Your task to perform on an android device: turn off translation in the chrome app Image 0: 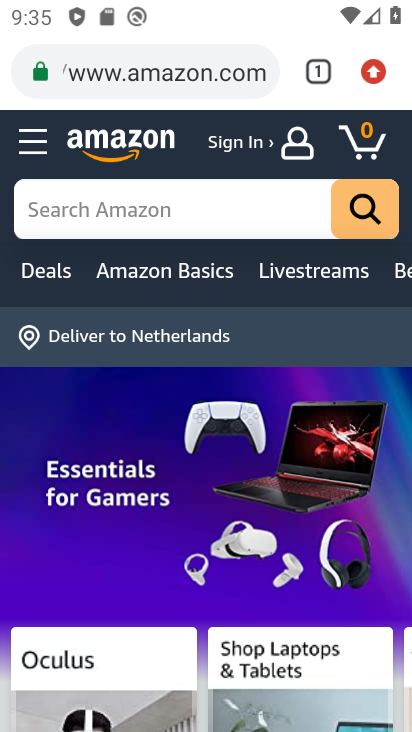
Step 0: press home button
Your task to perform on an android device: turn off translation in the chrome app Image 1: 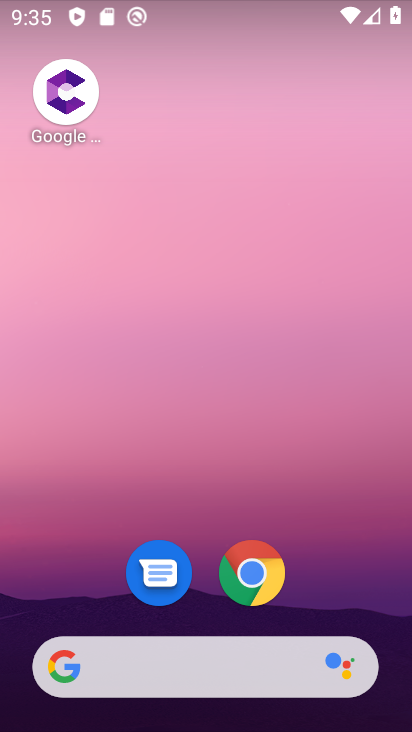
Step 1: click (251, 576)
Your task to perform on an android device: turn off translation in the chrome app Image 2: 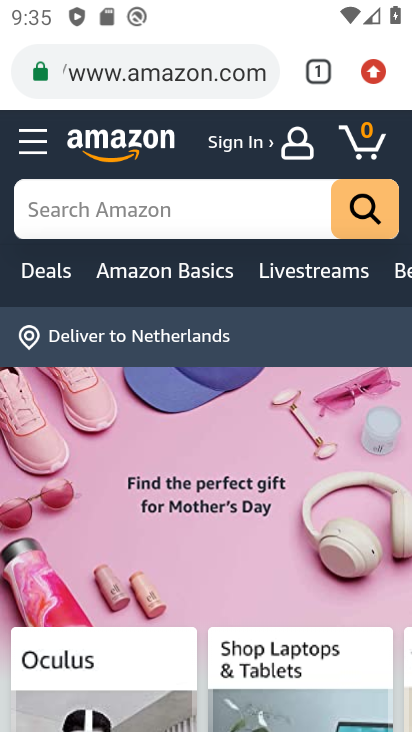
Step 2: click (374, 72)
Your task to perform on an android device: turn off translation in the chrome app Image 3: 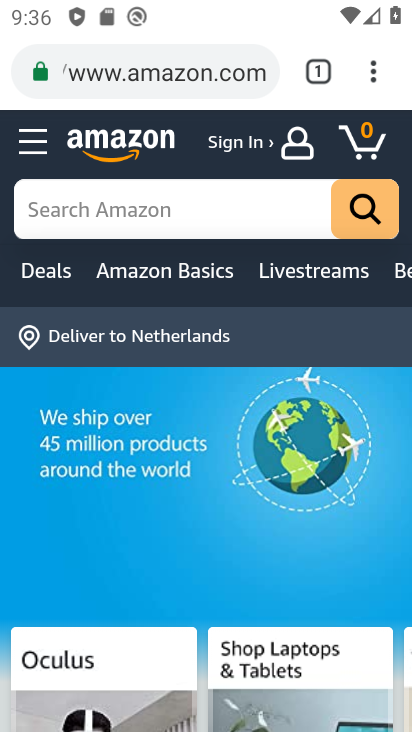
Step 3: click (374, 70)
Your task to perform on an android device: turn off translation in the chrome app Image 4: 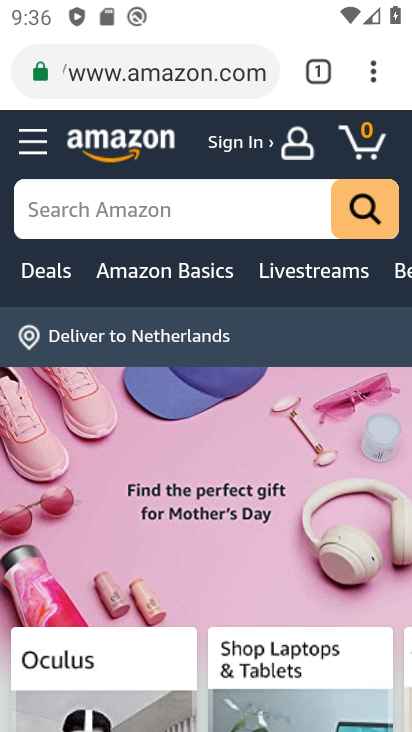
Step 4: click (374, 70)
Your task to perform on an android device: turn off translation in the chrome app Image 5: 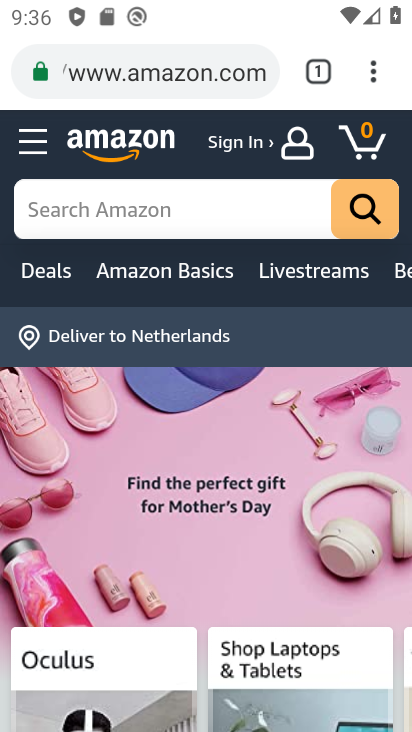
Step 5: click (375, 76)
Your task to perform on an android device: turn off translation in the chrome app Image 6: 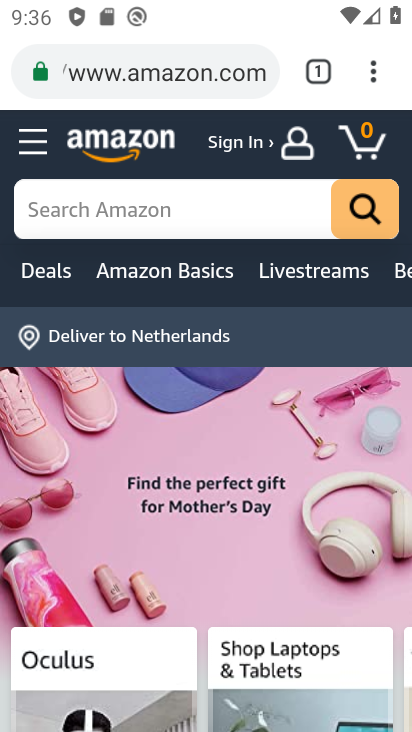
Step 6: click (373, 70)
Your task to perform on an android device: turn off translation in the chrome app Image 7: 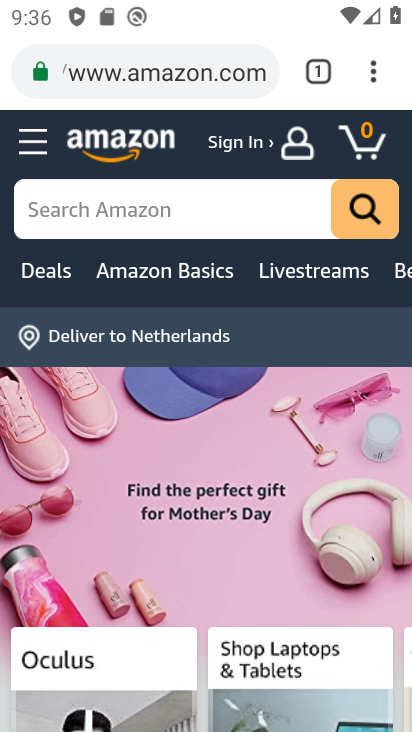
Step 7: click (371, 70)
Your task to perform on an android device: turn off translation in the chrome app Image 8: 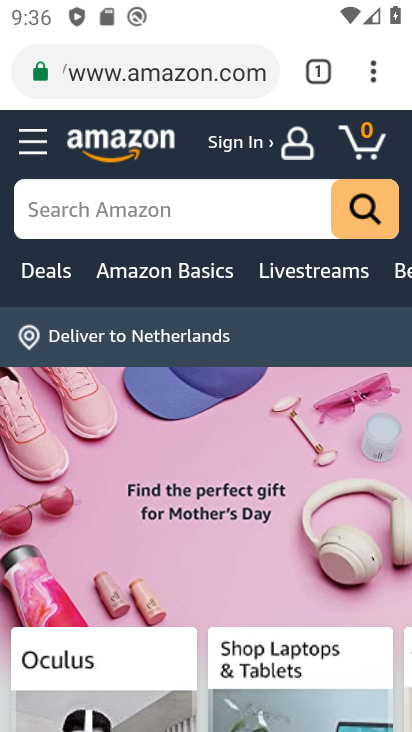
Step 8: click (373, 70)
Your task to perform on an android device: turn off translation in the chrome app Image 9: 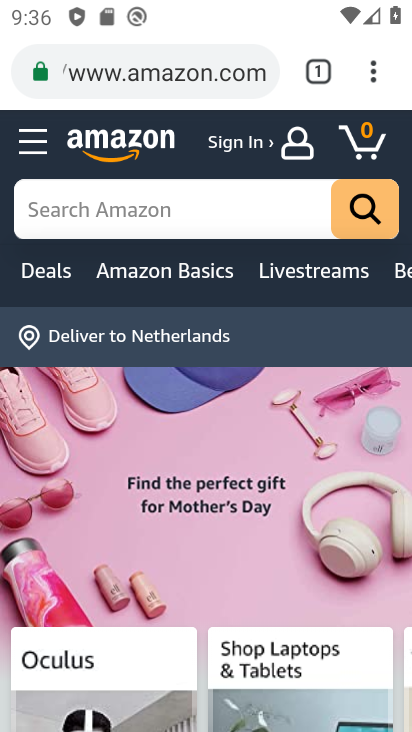
Step 9: click (374, 68)
Your task to perform on an android device: turn off translation in the chrome app Image 10: 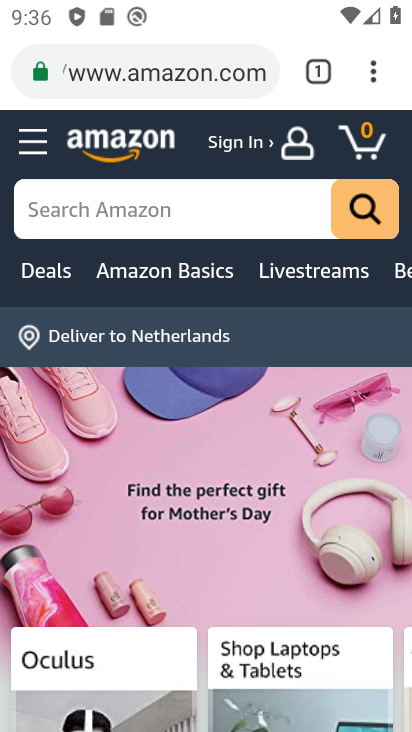
Step 10: click (377, 73)
Your task to perform on an android device: turn off translation in the chrome app Image 11: 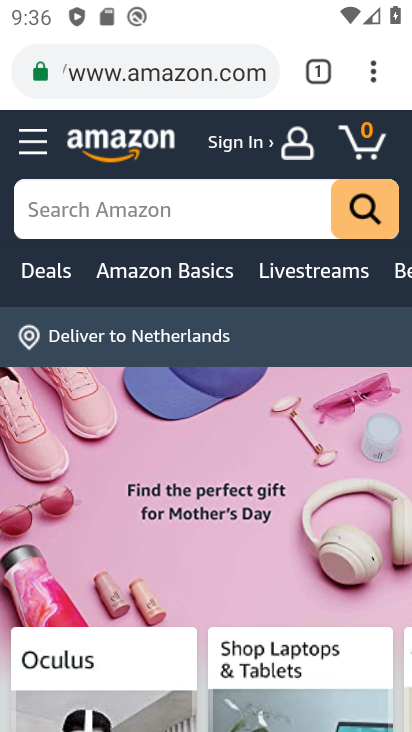
Step 11: click (370, 71)
Your task to perform on an android device: turn off translation in the chrome app Image 12: 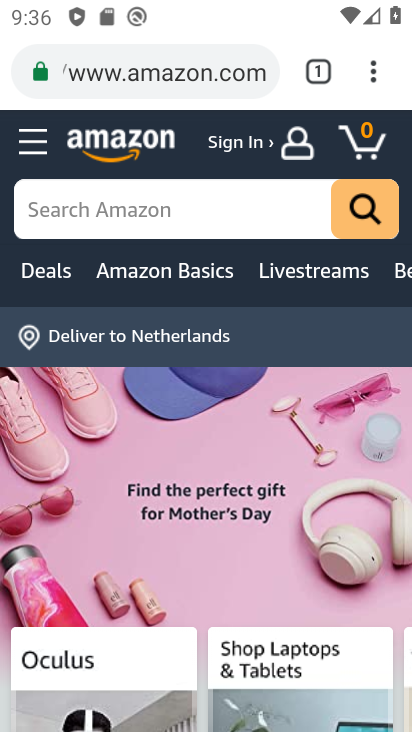
Step 12: click (365, 67)
Your task to perform on an android device: turn off translation in the chrome app Image 13: 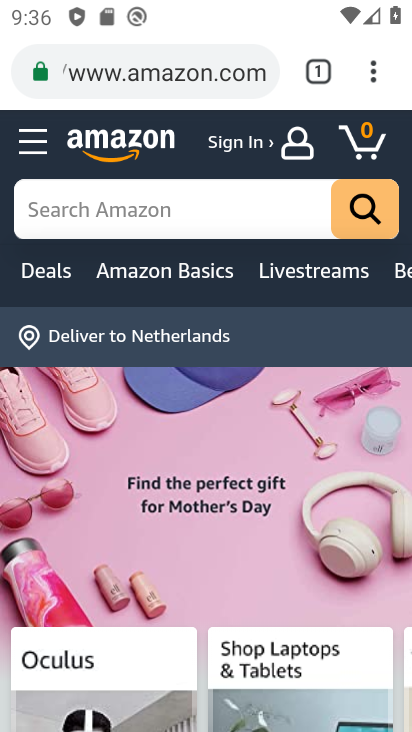
Step 13: click (374, 72)
Your task to perform on an android device: turn off translation in the chrome app Image 14: 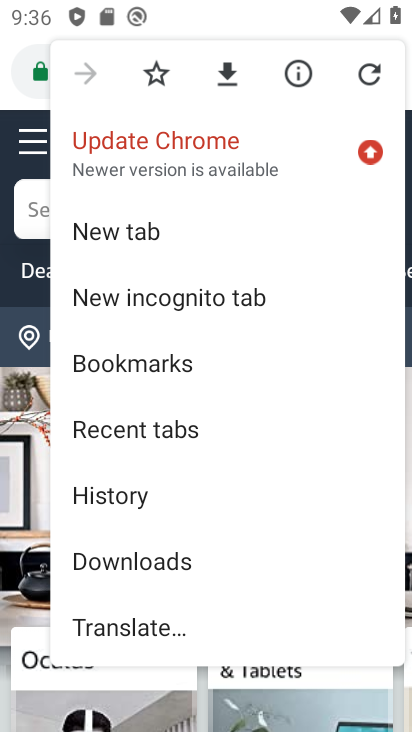
Step 14: drag from (336, 583) to (329, 195)
Your task to perform on an android device: turn off translation in the chrome app Image 15: 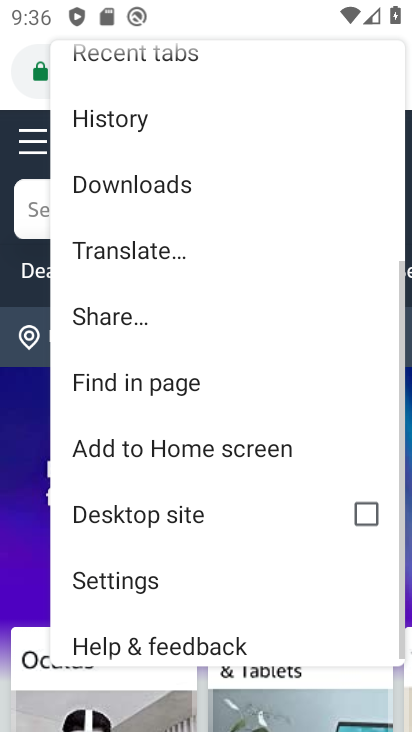
Step 15: drag from (223, 508) to (208, 194)
Your task to perform on an android device: turn off translation in the chrome app Image 16: 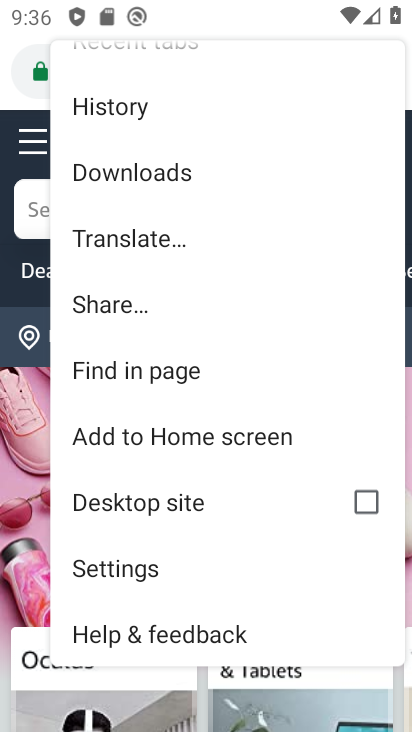
Step 16: click (105, 573)
Your task to perform on an android device: turn off translation in the chrome app Image 17: 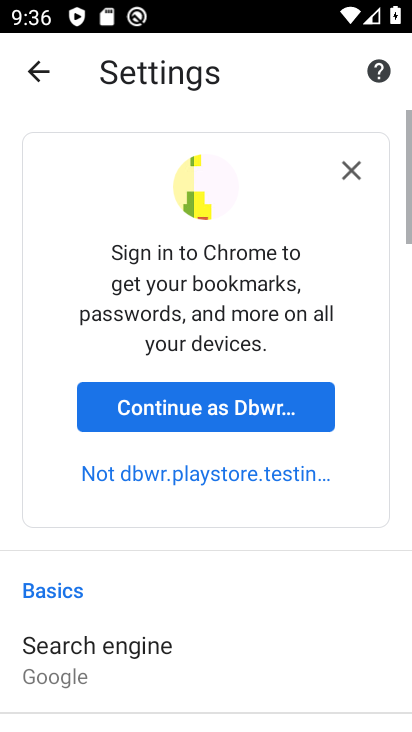
Step 17: drag from (233, 607) to (239, 220)
Your task to perform on an android device: turn off translation in the chrome app Image 18: 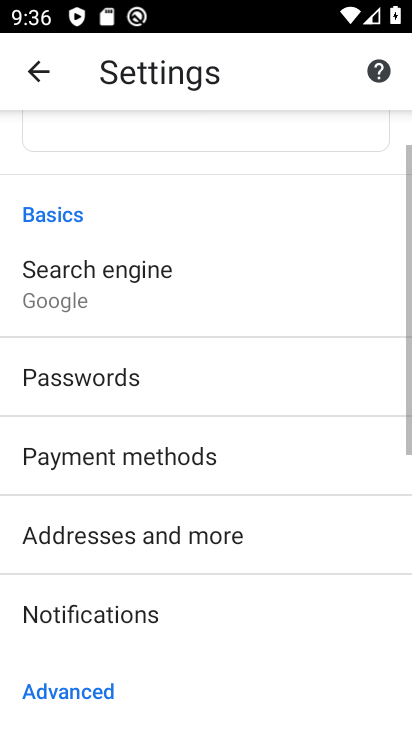
Step 18: drag from (185, 578) to (193, 195)
Your task to perform on an android device: turn off translation in the chrome app Image 19: 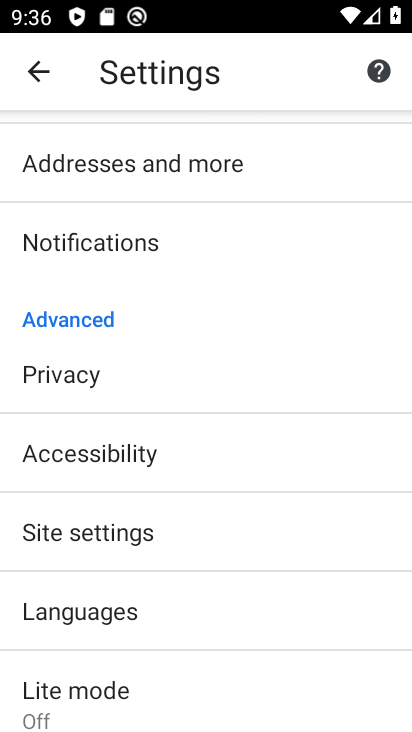
Step 19: drag from (213, 556) to (213, 262)
Your task to perform on an android device: turn off translation in the chrome app Image 20: 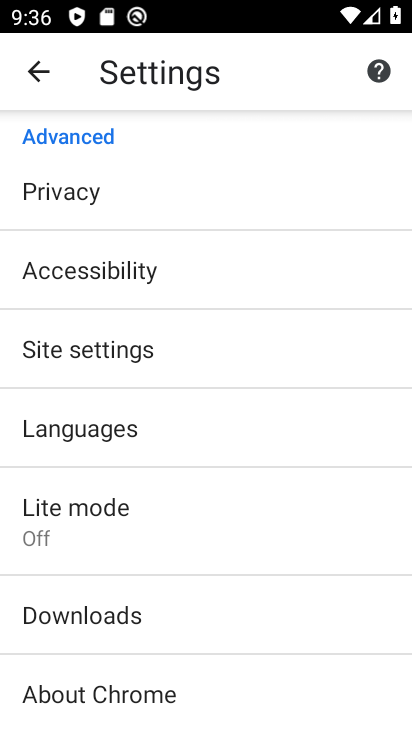
Step 20: click (87, 430)
Your task to perform on an android device: turn off translation in the chrome app Image 21: 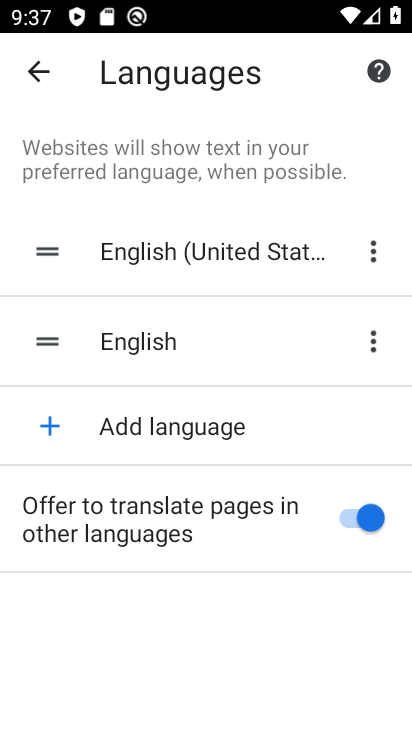
Step 21: click (355, 516)
Your task to perform on an android device: turn off translation in the chrome app Image 22: 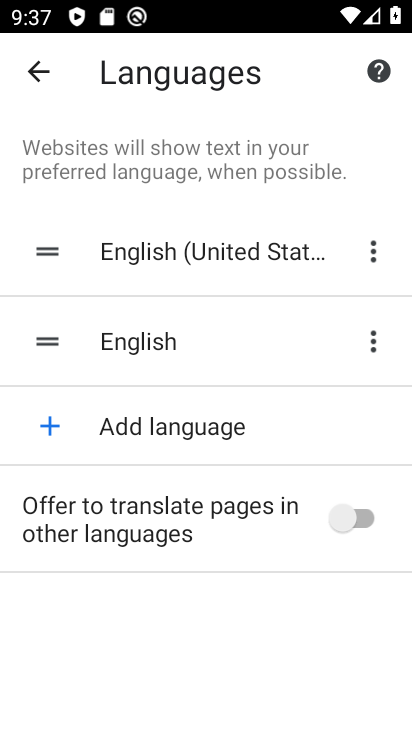
Step 22: task complete